Your task to perform on an android device: When is my next appointment? Image 0: 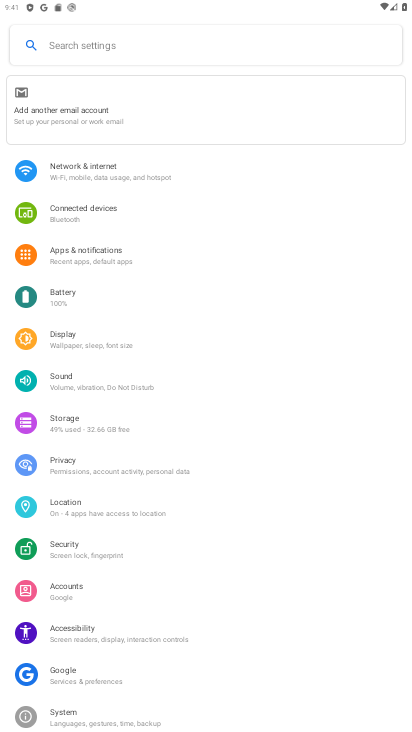
Step 0: press home button
Your task to perform on an android device: When is my next appointment? Image 1: 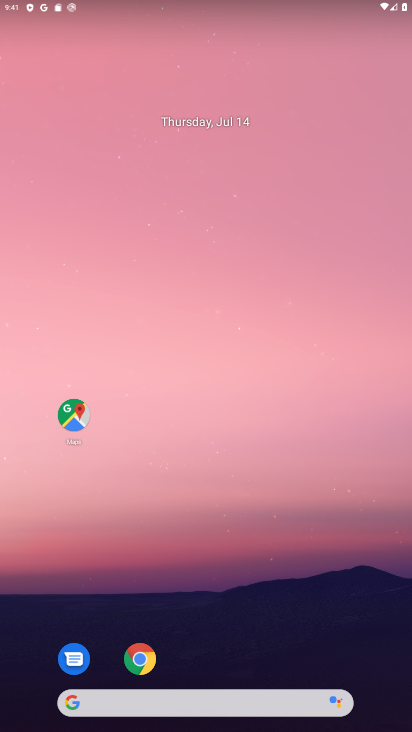
Step 1: drag from (322, 625) to (183, 99)
Your task to perform on an android device: When is my next appointment? Image 2: 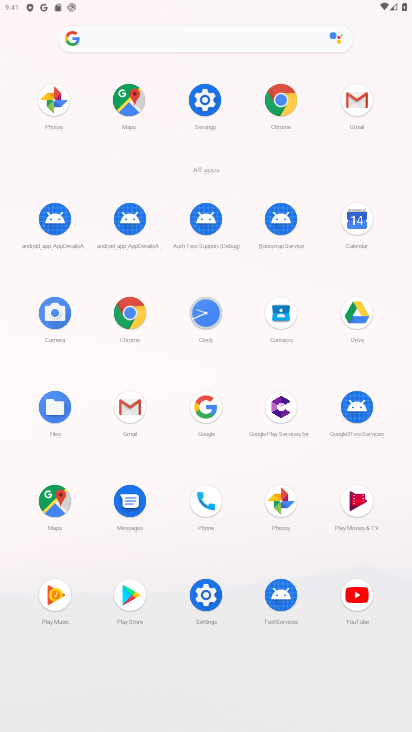
Step 2: click (353, 219)
Your task to perform on an android device: When is my next appointment? Image 3: 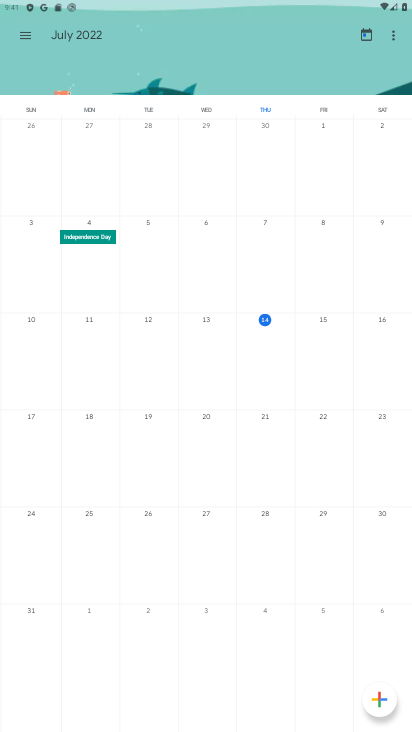
Step 3: click (269, 323)
Your task to perform on an android device: When is my next appointment? Image 4: 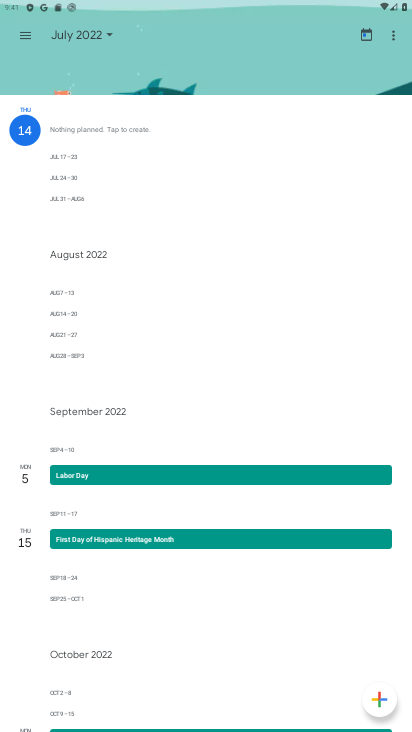
Step 4: task complete